Your task to perform on an android device: empty trash in google photos Image 0: 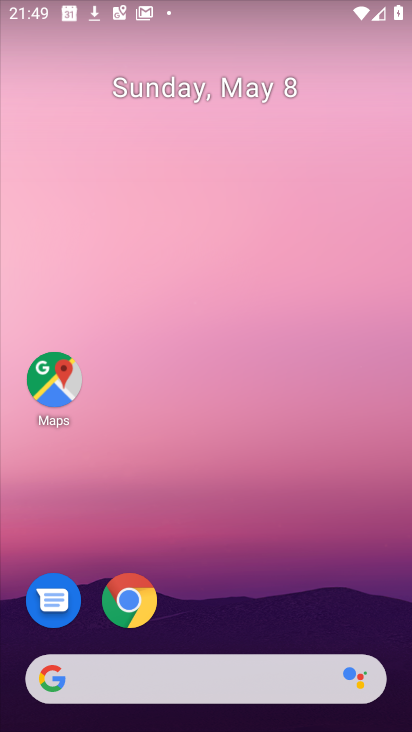
Step 0: drag from (254, 578) to (218, 244)
Your task to perform on an android device: empty trash in google photos Image 1: 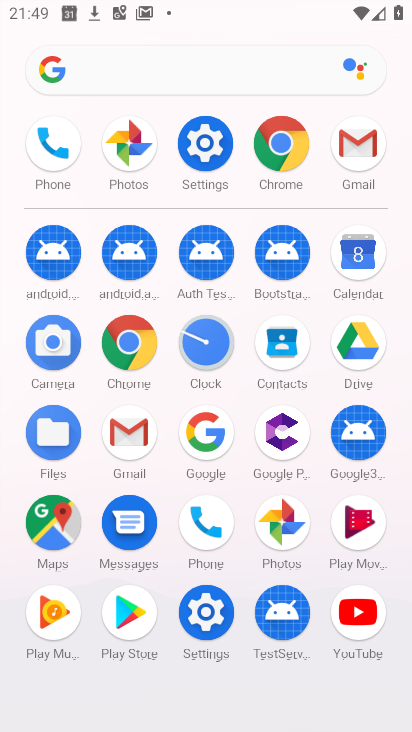
Step 1: click (137, 156)
Your task to perform on an android device: empty trash in google photos Image 2: 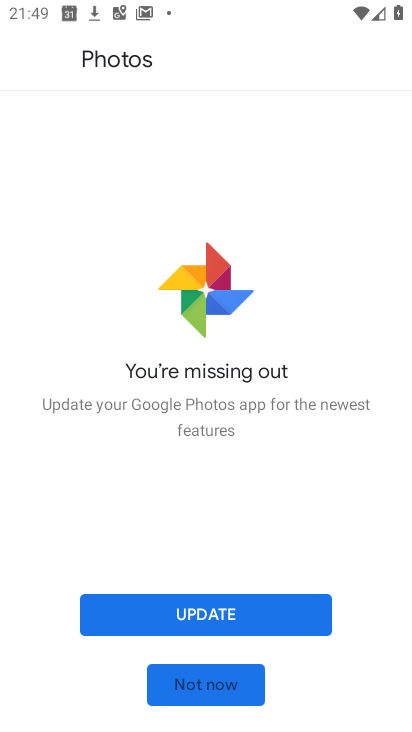
Step 2: click (256, 676)
Your task to perform on an android device: empty trash in google photos Image 3: 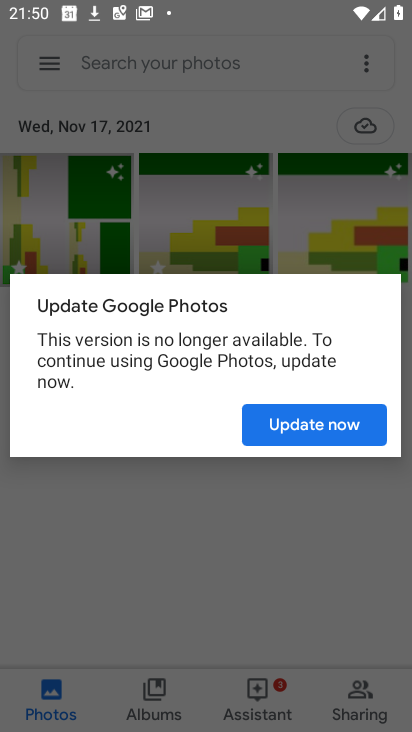
Step 3: click (356, 414)
Your task to perform on an android device: empty trash in google photos Image 4: 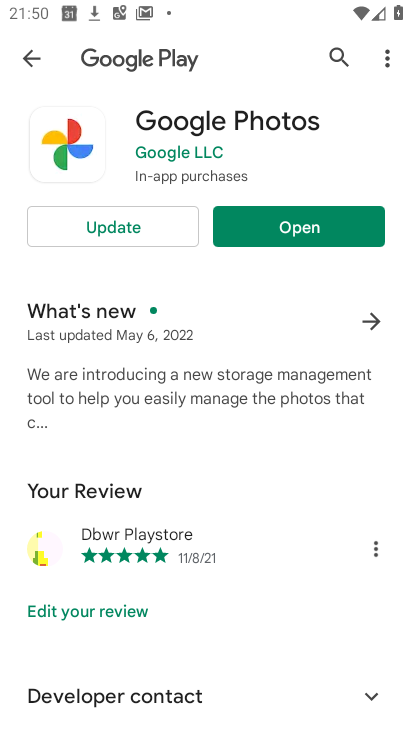
Step 4: click (299, 217)
Your task to perform on an android device: empty trash in google photos Image 5: 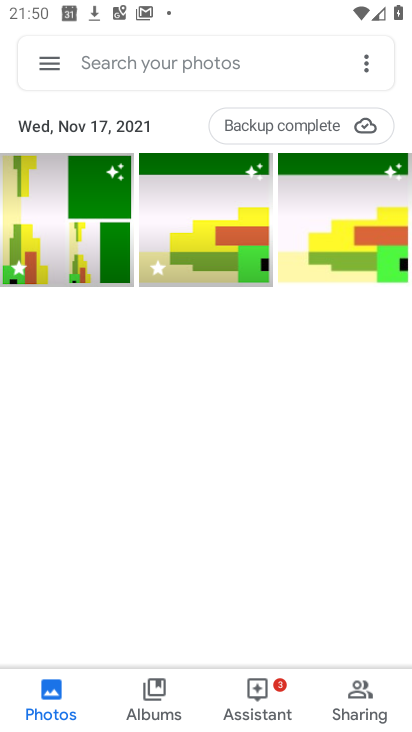
Step 5: click (151, 75)
Your task to perform on an android device: empty trash in google photos Image 6: 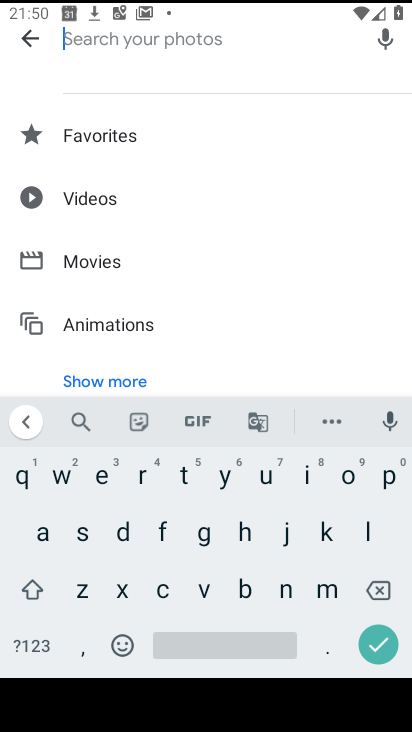
Step 6: click (181, 481)
Your task to perform on an android device: empty trash in google photos Image 7: 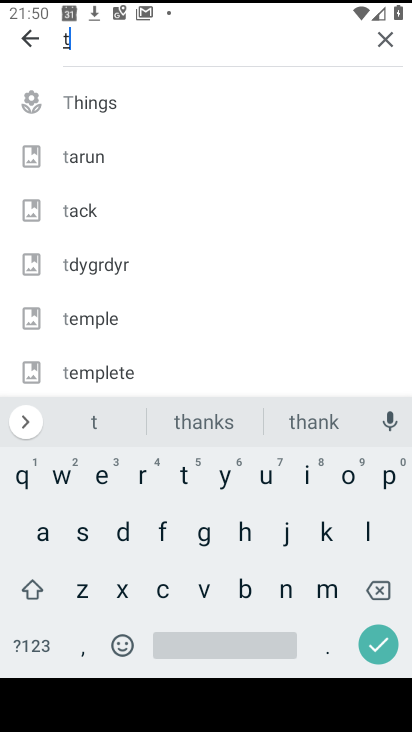
Step 7: click (143, 478)
Your task to perform on an android device: empty trash in google photos Image 8: 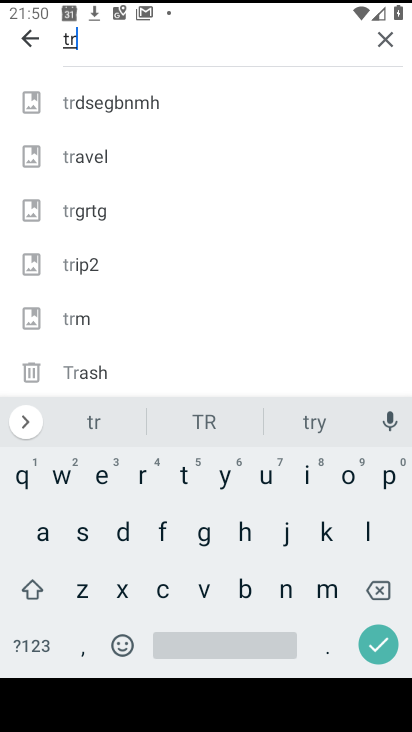
Step 8: click (110, 370)
Your task to perform on an android device: empty trash in google photos Image 9: 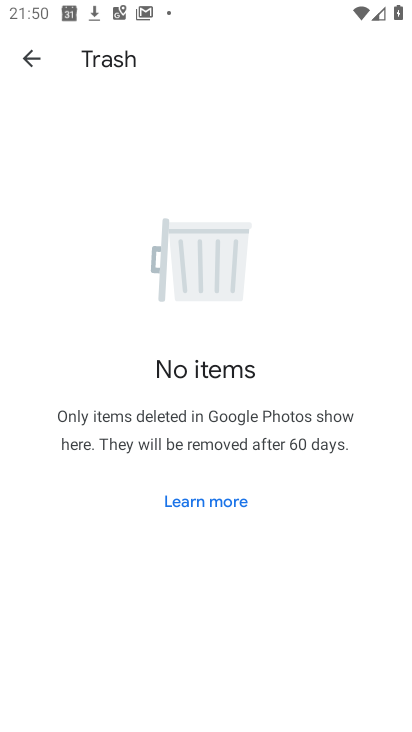
Step 9: task complete